Your task to perform on an android device: check out phone information Image 0: 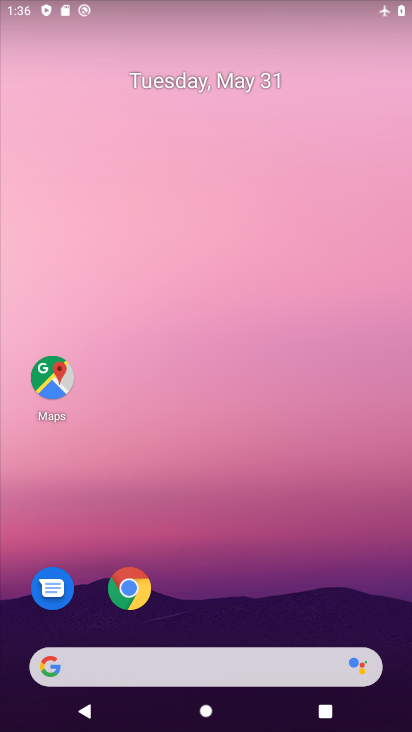
Step 0: drag from (247, 617) to (193, 66)
Your task to perform on an android device: check out phone information Image 1: 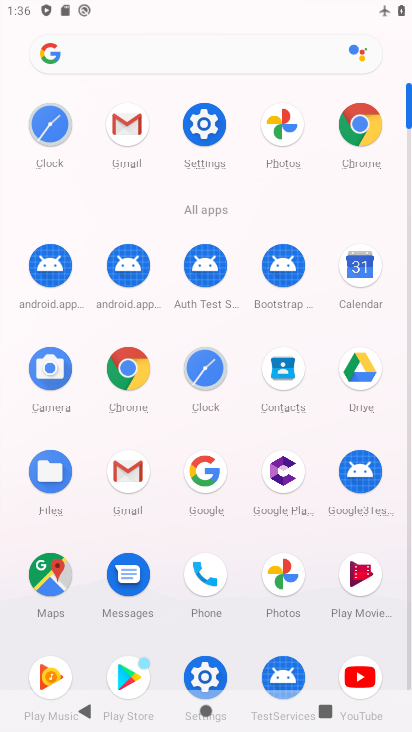
Step 1: click (208, 133)
Your task to perform on an android device: check out phone information Image 2: 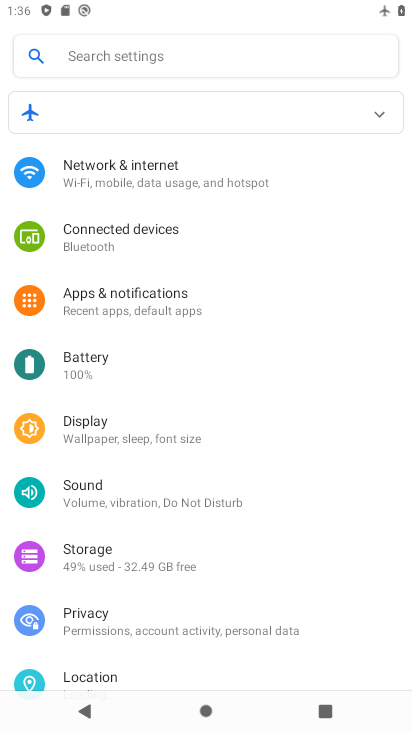
Step 2: drag from (219, 656) to (212, 204)
Your task to perform on an android device: check out phone information Image 3: 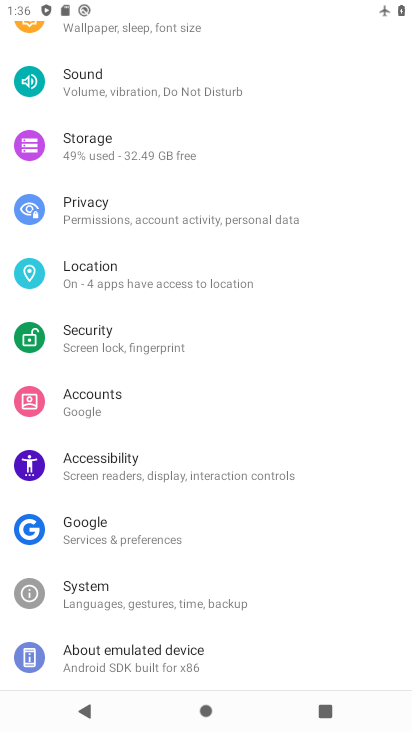
Step 3: click (183, 652)
Your task to perform on an android device: check out phone information Image 4: 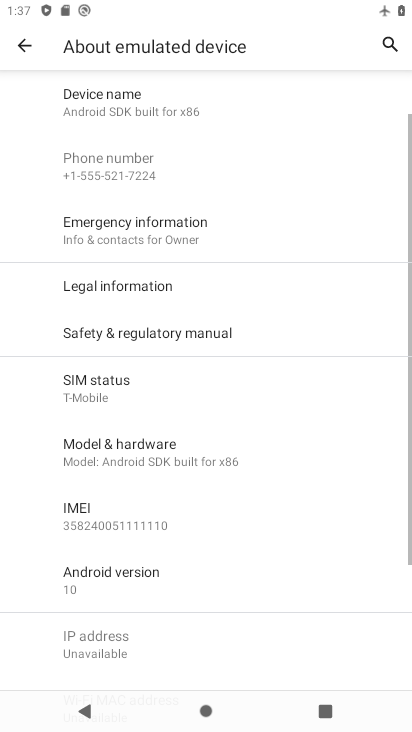
Step 4: task complete